Your task to perform on an android device: delete location history Image 0: 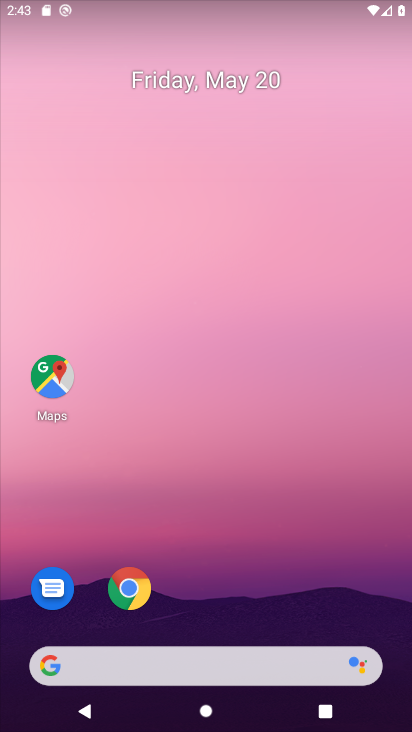
Step 0: drag from (312, 540) to (274, 130)
Your task to perform on an android device: delete location history Image 1: 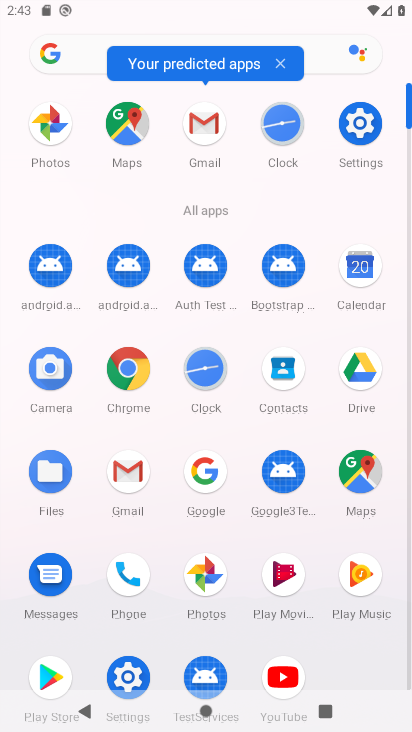
Step 1: click (359, 128)
Your task to perform on an android device: delete location history Image 2: 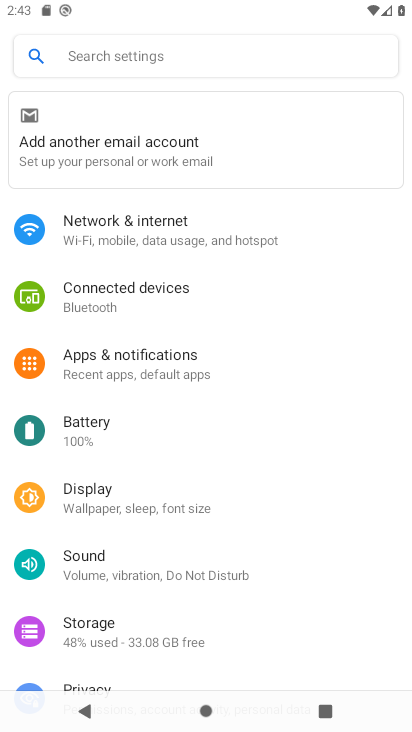
Step 2: drag from (175, 495) to (213, 228)
Your task to perform on an android device: delete location history Image 3: 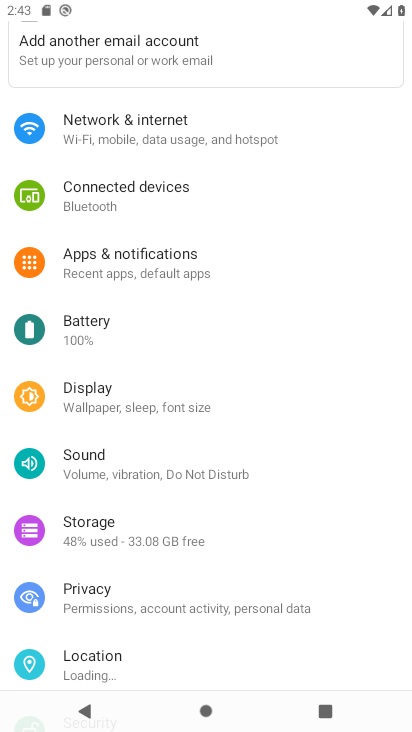
Step 3: click (155, 270)
Your task to perform on an android device: delete location history Image 4: 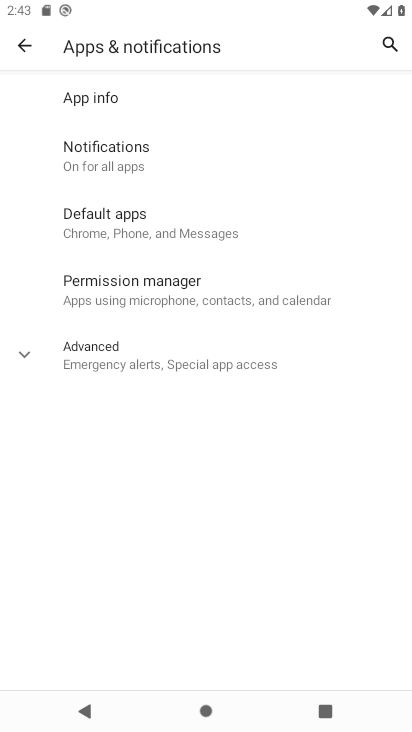
Step 4: click (116, 98)
Your task to perform on an android device: delete location history Image 5: 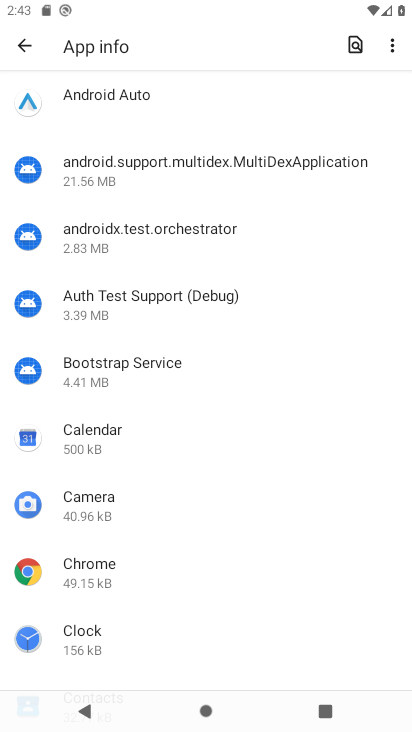
Step 5: click (16, 50)
Your task to perform on an android device: delete location history Image 6: 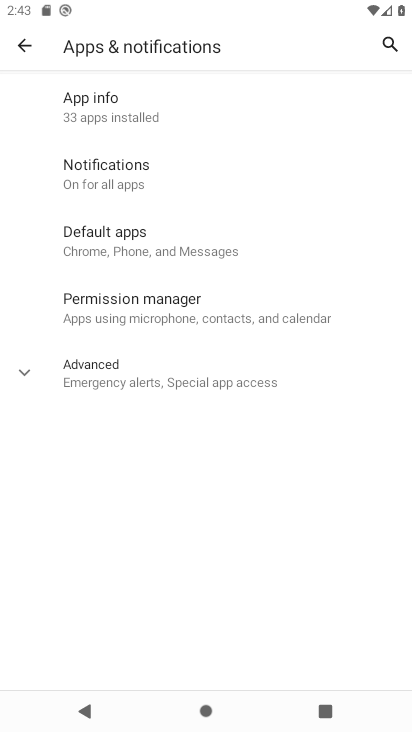
Step 6: click (158, 185)
Your task to perform on an android device: delete location history Image 7: 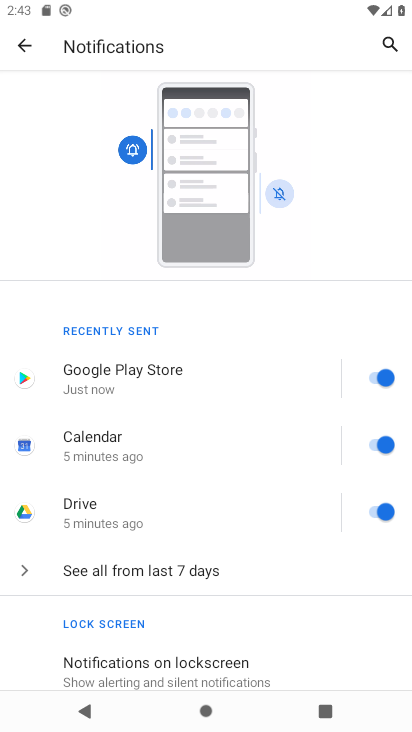
Step 7: click (25, 44)
Your task to perform on an android device: delete location history Image 8: 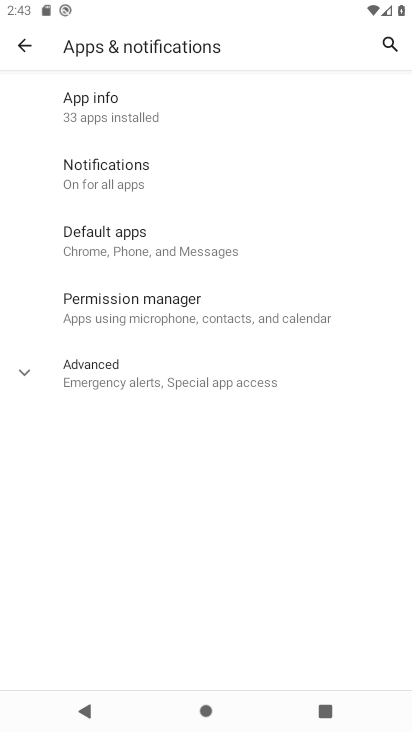
Step 8: click (147, 116)
Your task to perform on an android device: delete location history Image 9: 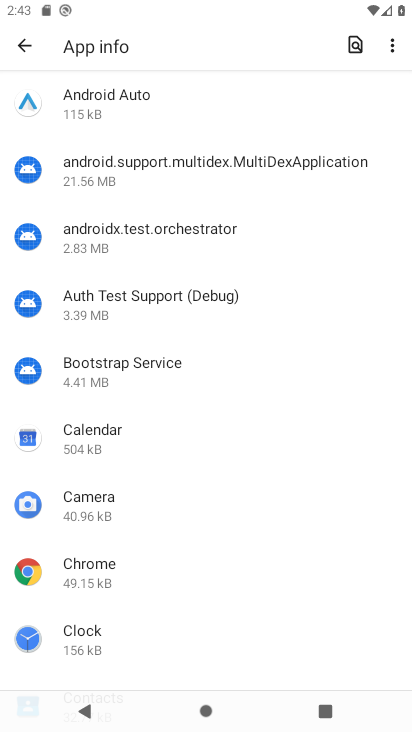
Step 9: drag from (208, 504) to (258, 50)
Your task to perform on an android device: delete location history Image 10: 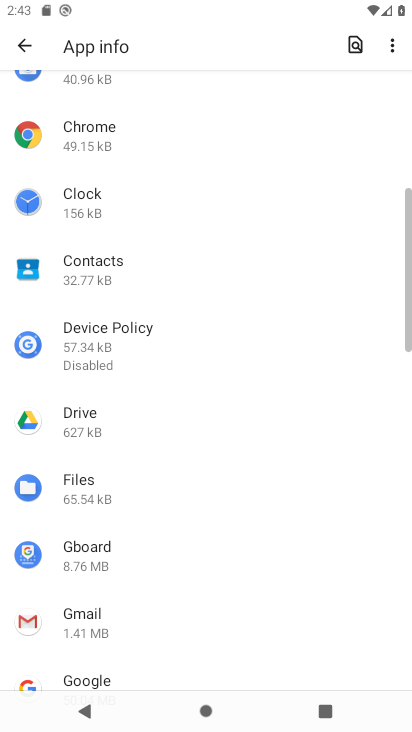
Step 10: drag from (182, 503) to (207, 38)
Your task to perform on an android device: delete location history Image 11: 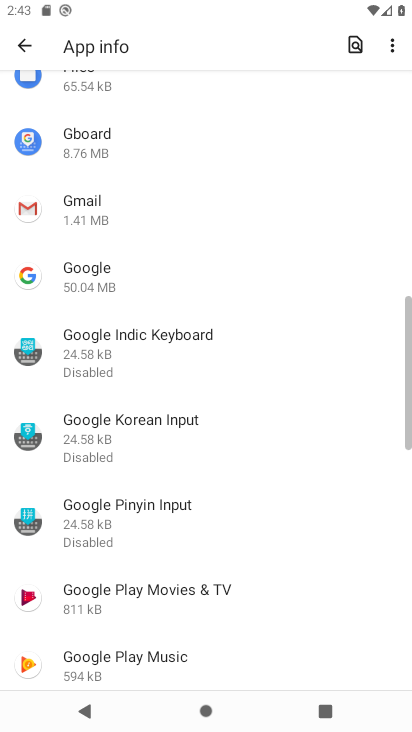
Step 11: drag from (128, 605) to (191, 149)
Your task to perform on an android device: delete location history Image 12: 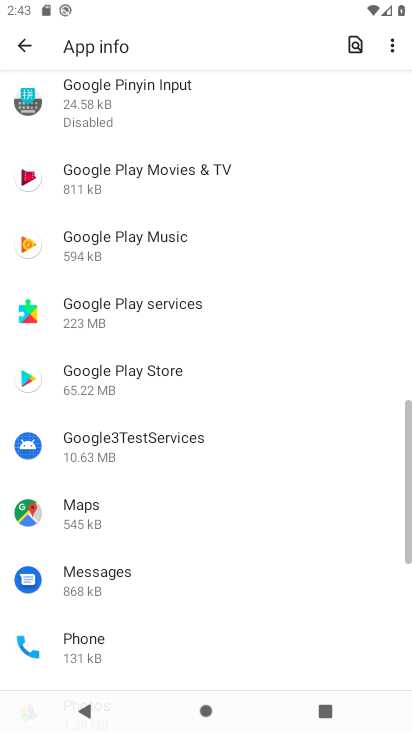
Step 12: click (89, 518)
Your task to perform on an android device: delete location history Image 13: 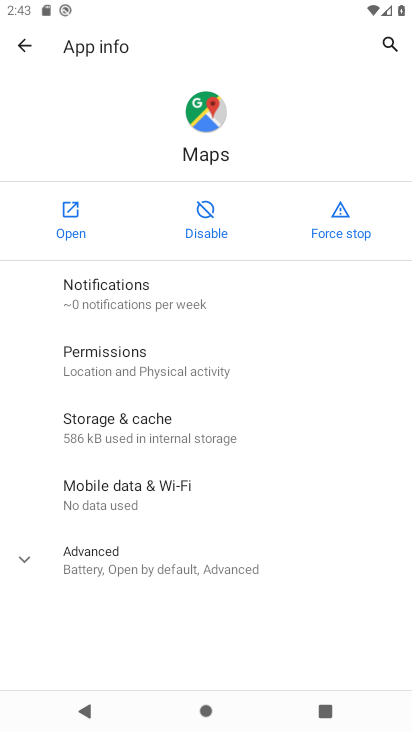
Step 13: click (84, 221)
Your task to perform on an android device: delete location history Image 14: 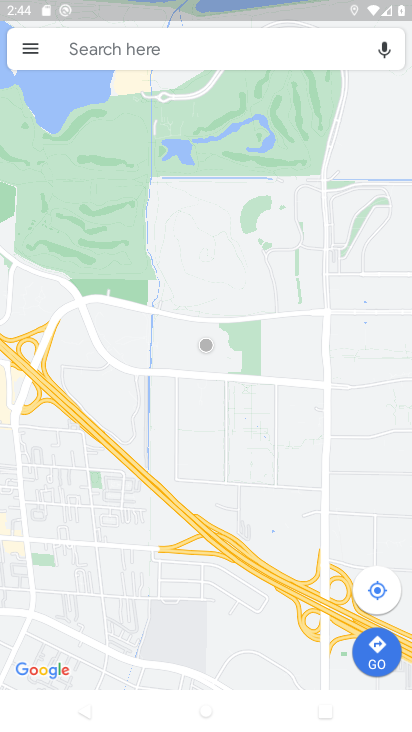
Step 14: click (32, 44)
Your task to perform on an android device: delete location history Image 15: 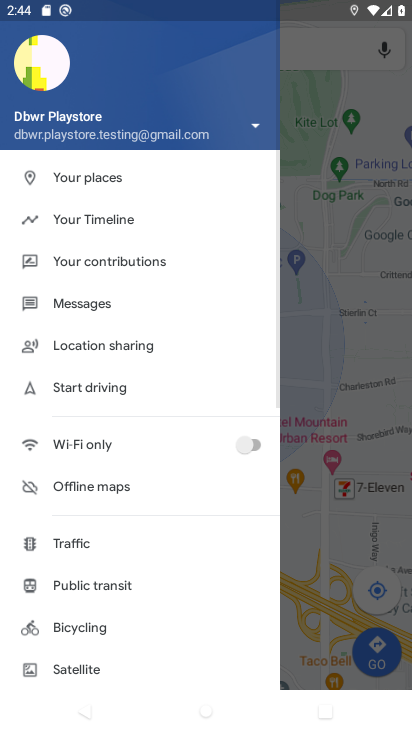
Step 15: drag from (210, 608) to (247, 138)
Your task to perform on an android device: delete location history Image 16: 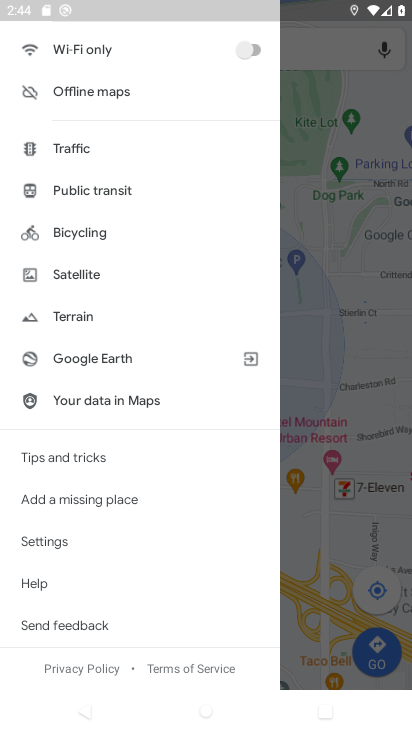
Step 16: click (36, 542)
Your task to perform on an android device: delete location history Image 17: 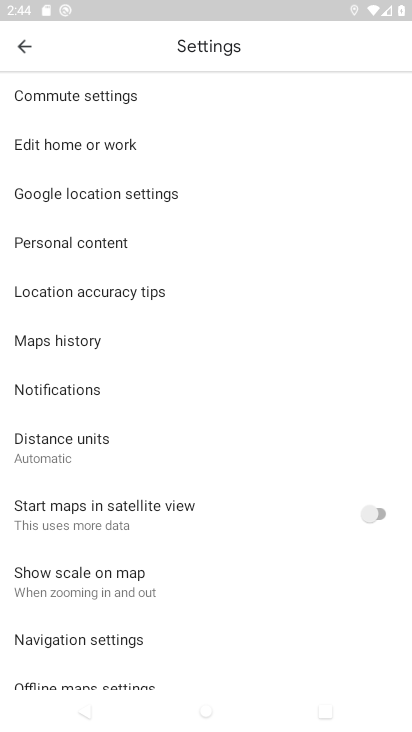
Step 17: click (92, 340)
Your task to perform on an android device: delete location history Image 18: 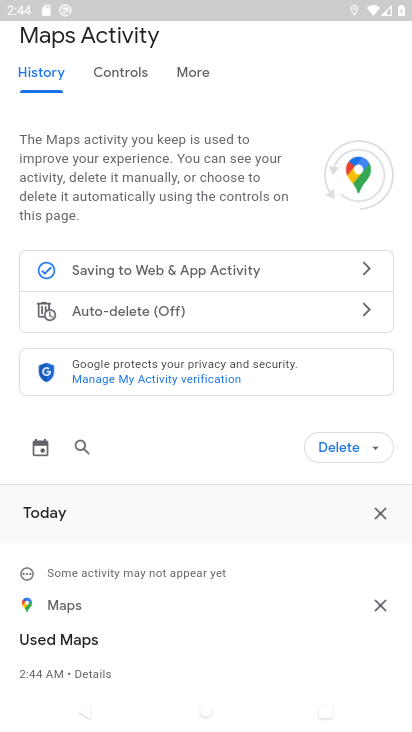
Step 18: click (342, 444)
Your task to perform on an android device: delete location history Image 19: 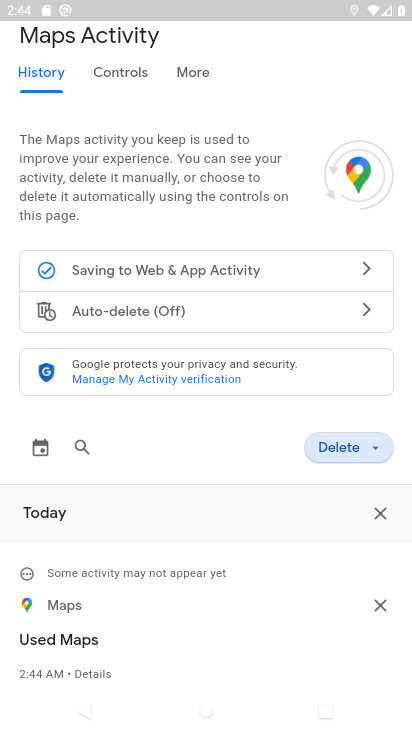
Step 19: click (353, 454)
Your task to perform on an android device: delete location history Image 20: 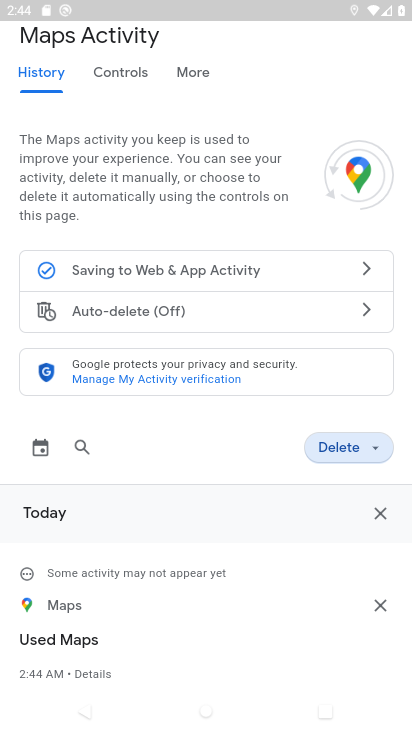
Step 20: click (357, 446)
Your task to perform on an android device: delete location history Image 21: 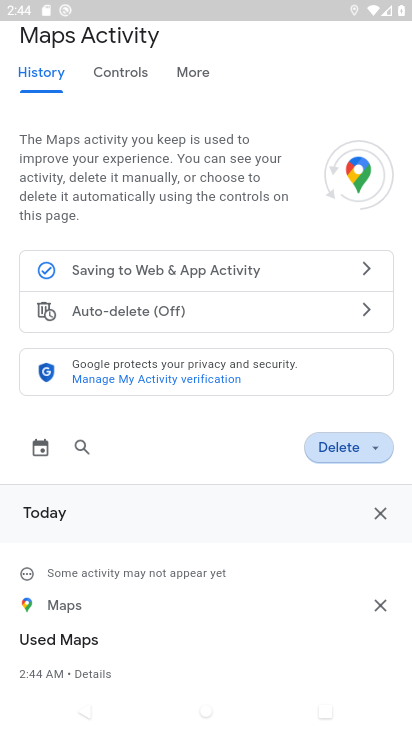
Step 21: click (357, 446)
Your task to perform on an android device: delete location history Image 22: 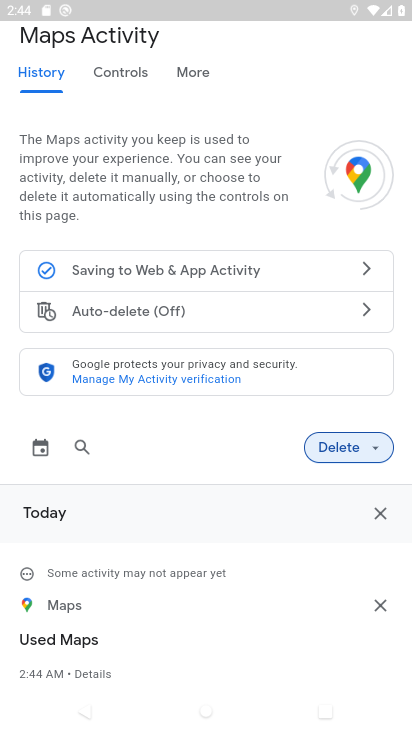
Step 22: click (357, 446)
Your task to perform on an android device: delete location history Image 23: 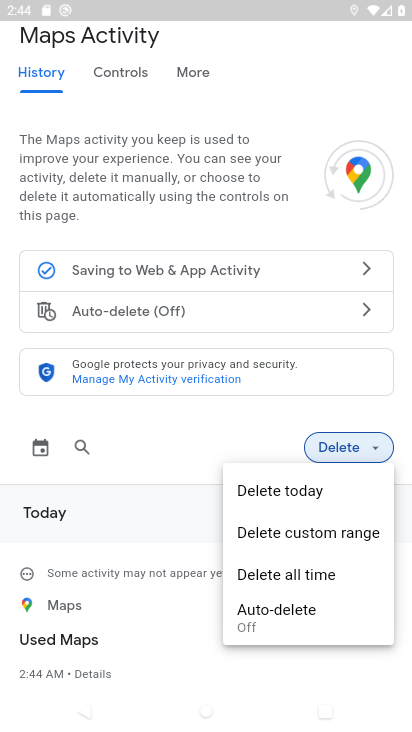
Step 23: click (298, 574)
Your task to perform on an android device: delete location history Image 24: 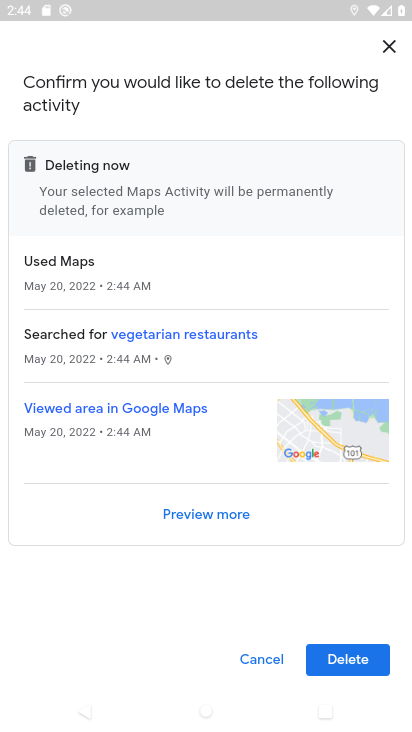
Step 24: click (352, 663)
Your task to perform on an android device: delete location history Image 25: 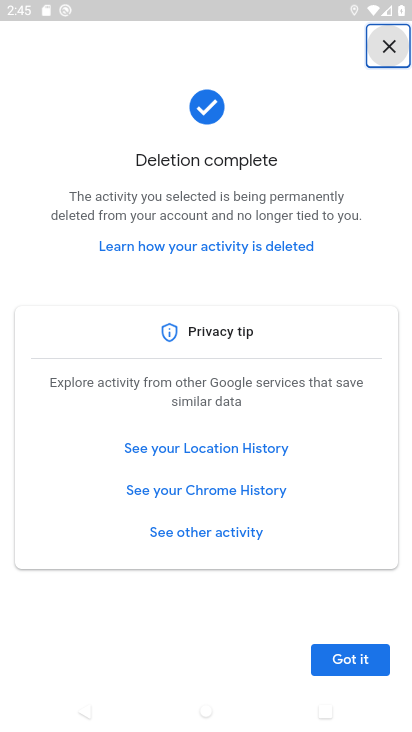
Step 25: task complete